Your task to perform on an android device: Open the web browser Image 0: 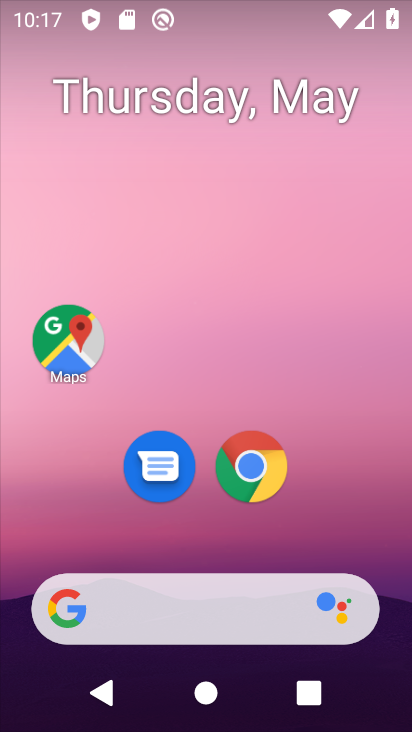
Step 0: drag from (333, 500) to (319, 87)
Your task to perform on an android device: Open the web browser Image 1: 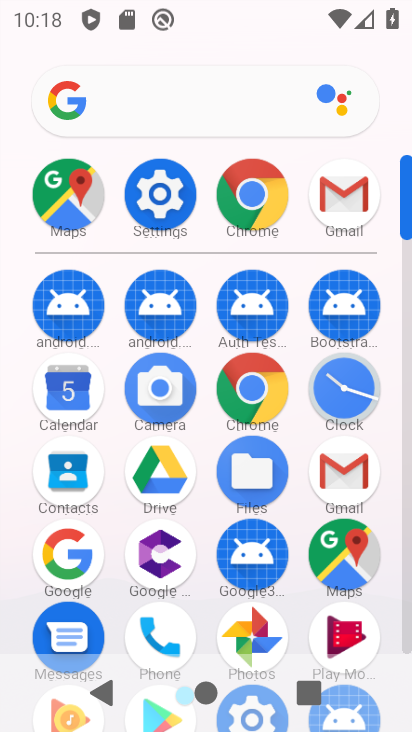
Step 1: click (240, 386)
Your task to perform on an android device: Open the web browser Image 2: 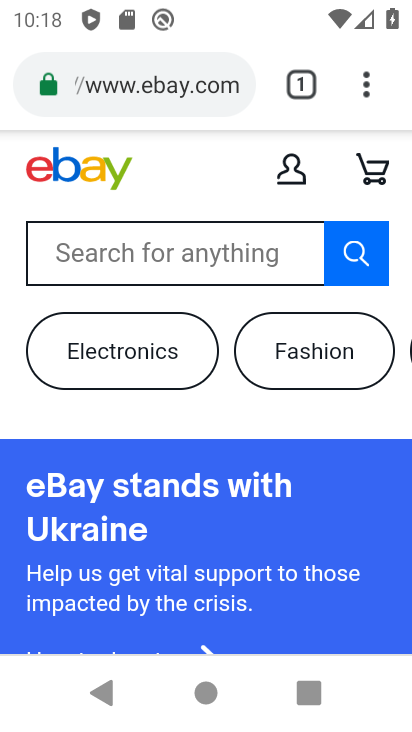
Step 2: task complete